Your task to perform on an android device: toggle pop-ups in chrome Image 0: 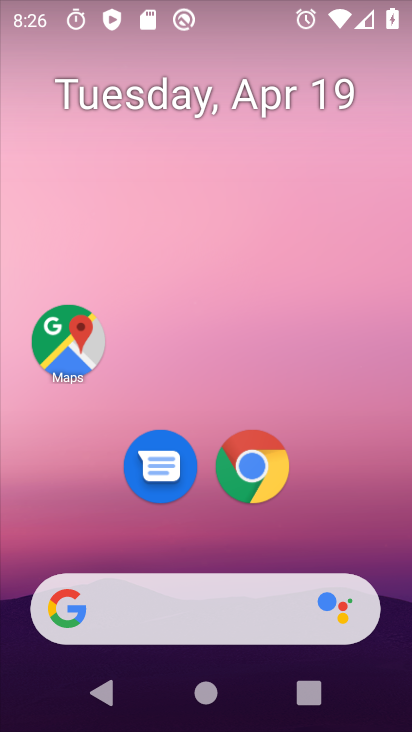
Step 0: drag from (359, 477) to (395, 7)
Your task to perform on an android device: toggle pop-ups in chrome Image 1: 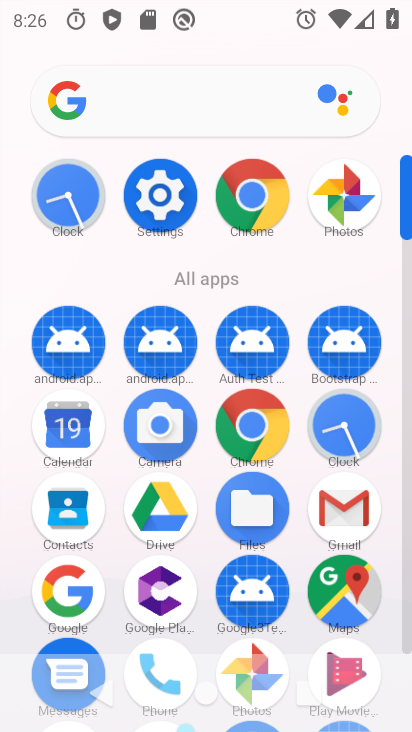
Step 1: click (270, 437)
Your task to perform on an android device: toggle pop-ups in chrome Image 2: 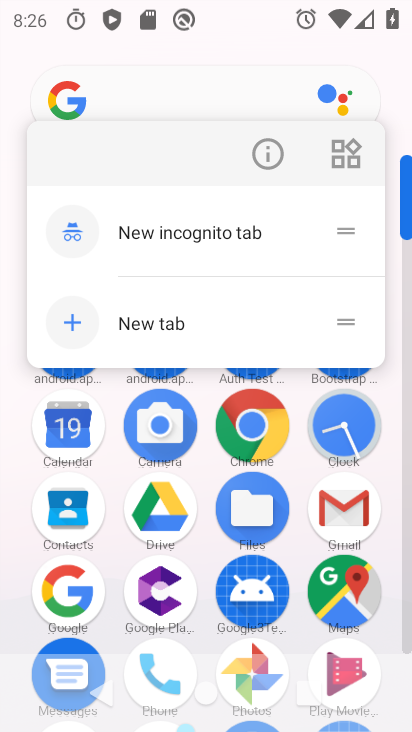
Step 2: click (270, 437)
Your task to perform on an android device: toggle pop-ups in chrome Image 3: 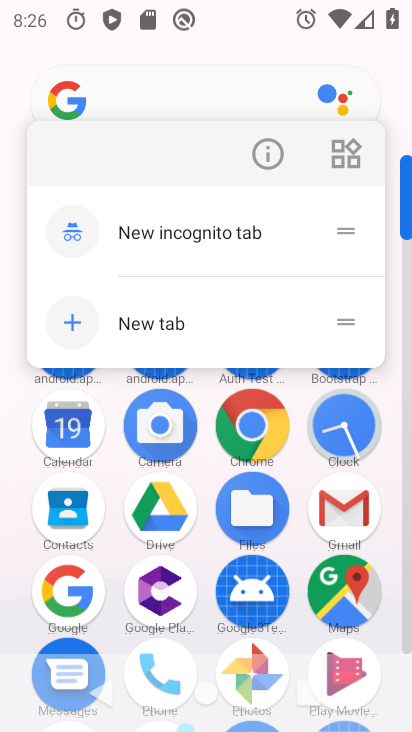
Step 3: click (270, 437)
Your task to perform on an android device: toggle pop-ups in chrome Image 4: 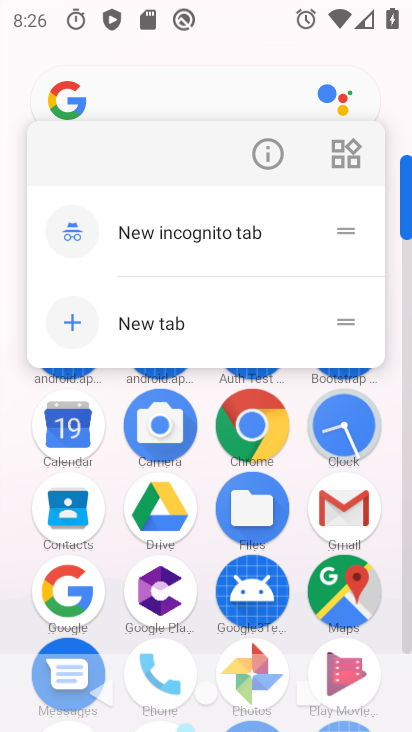
Step 4: click (244, 419)
Your task to perform on an android device: toggle pop-ups in chrome Image 5: 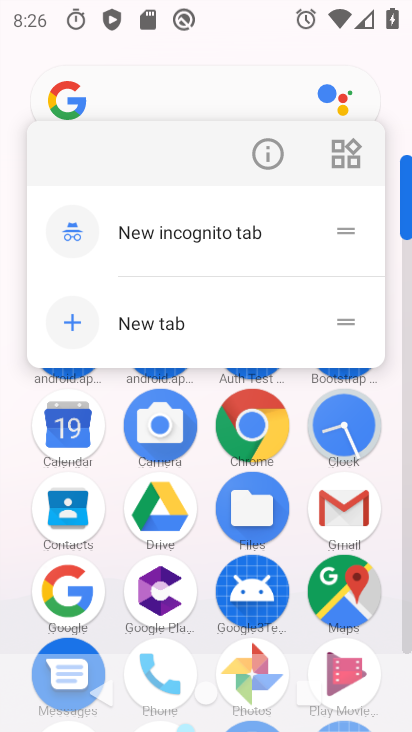
Step 5: click (244, 419)
Your task to perform on an android device: toggle pop-ups in chrome Image 6: 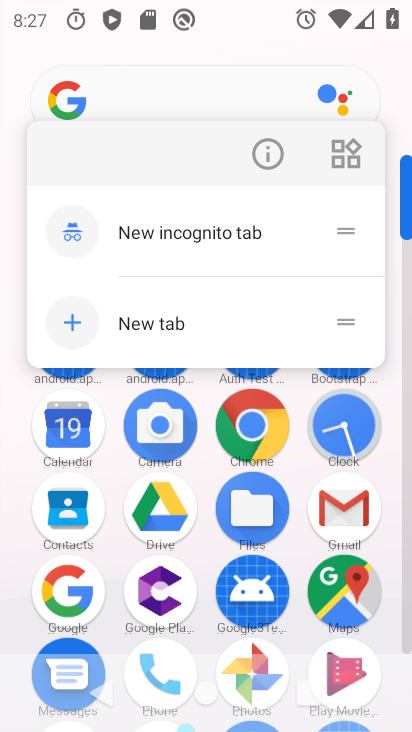
Step 6: click (244, 419)
Your task to perform on an android device: toggle pop-ups in chrome Image 7: 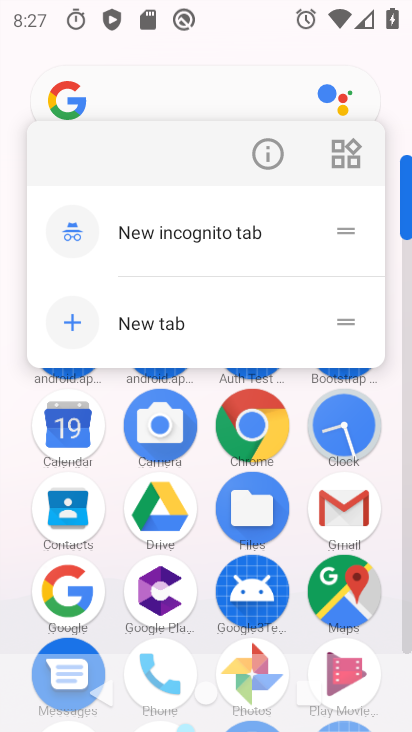
Step 7: click (244, 419)
Your task to perform on an android device: toggle pop-ups in chrome Image 8: 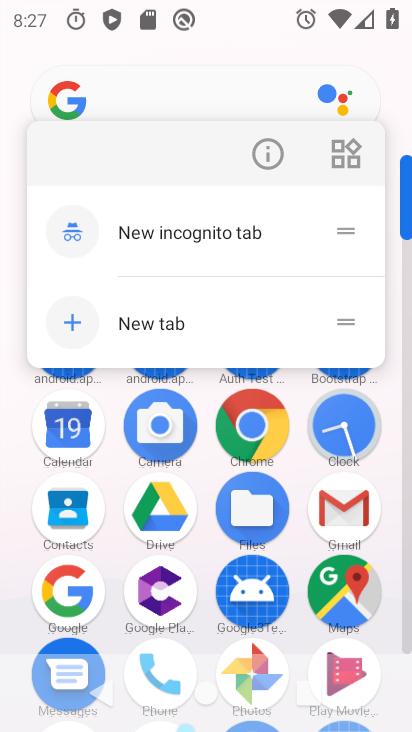
Step 8: click (244, 419)
Your task to perform on an android device: toggle pop-ups in chrome Image 9: 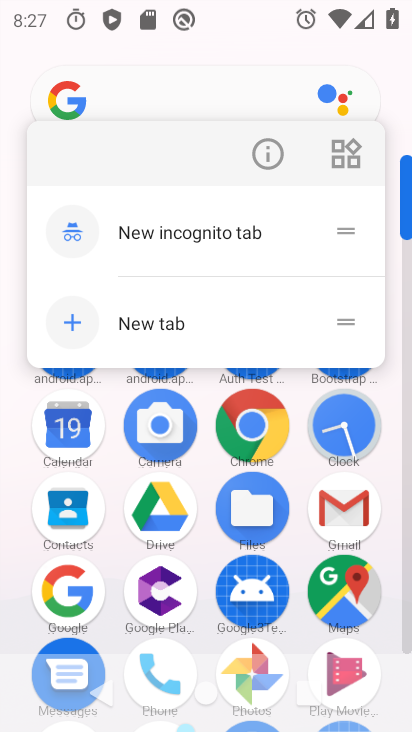
Step 9: click (244, 419)
Your task to perform on an android device: toggle pop-ups in chrome Image 10: 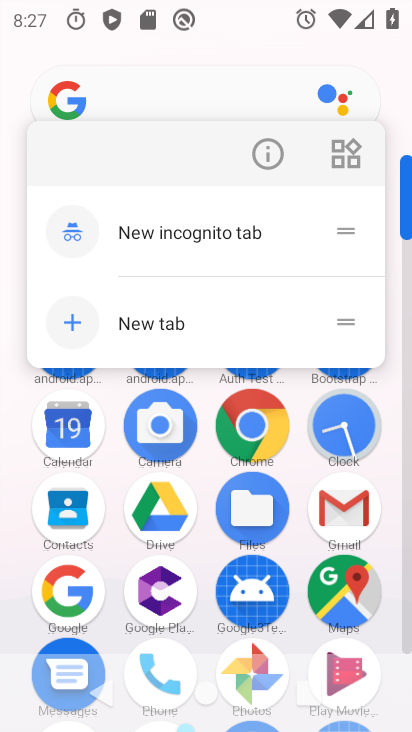
Step 10: click (244, 419)
Your task to perform on an android device: toggle pop-ups in chrome Image 11: 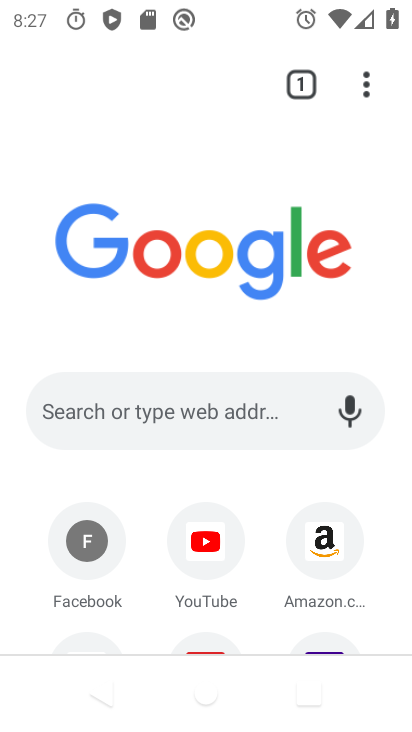
Step 11: drag from (365, 85) to (91, 522)
Your task to perform on an android device: toggle pop-ups in chrome Image 12: 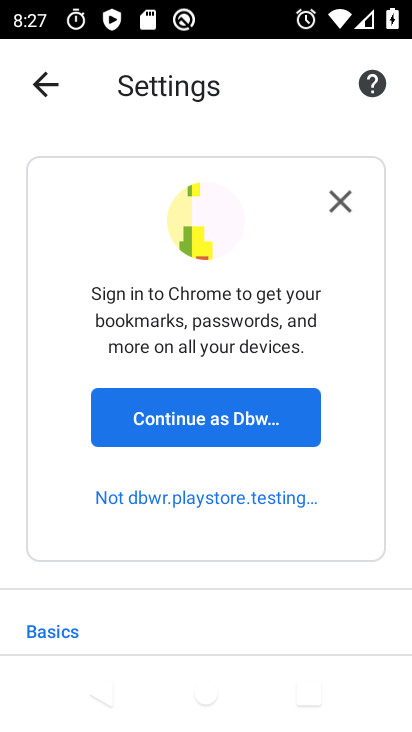
Step 12: drag from (170, 595) to (186, 215)
Your task to perform on an android device: toggle pop-ups in chrome Image 13: 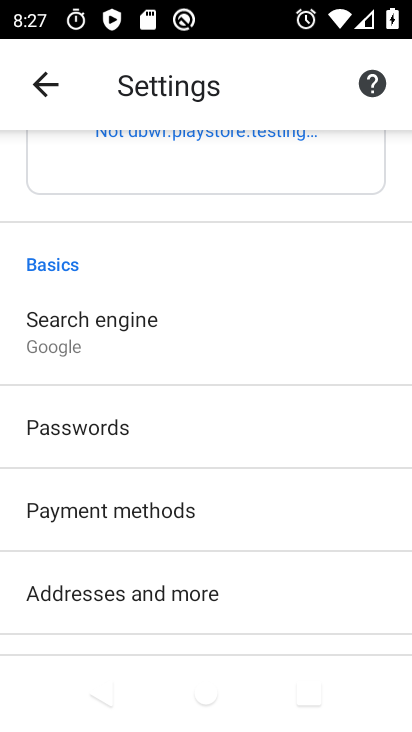
Step 13: drag from (149, 480) to (132, 211)
Your task to perform on an android device: toggle pop-ups in chrome Image 14: 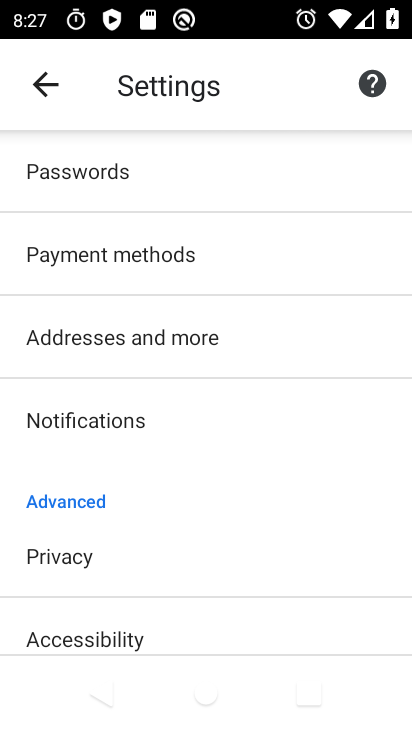
Step 14: drag from (151, 562) to (126, 216)
Your task to perform on an android device: toggle pop-ups in chrome Image 15: 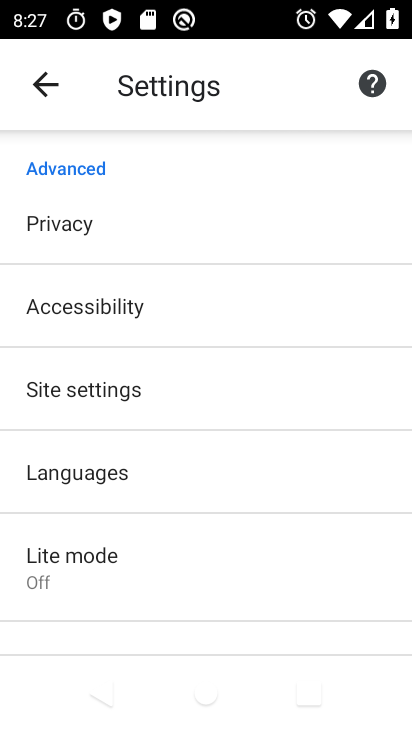
Step 15: click (70, 399)
Your task to perform on an android device: toggle pop-ups in chrome Image 16: 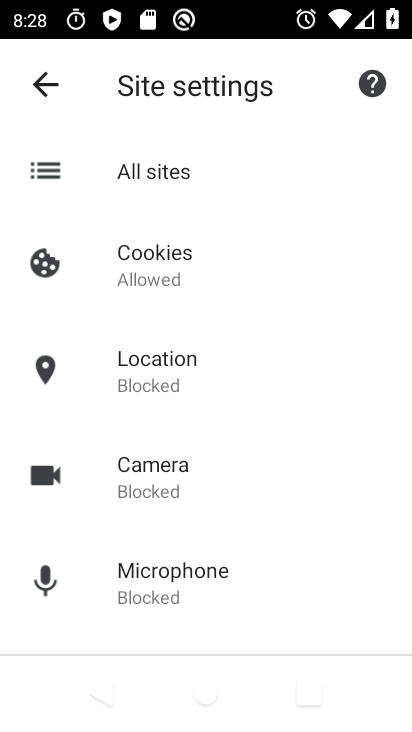
Step 16: drag from (91, 536) to (89, 160)
Your task to perform on an android device: toggle pop-ups in chrome Image 17: 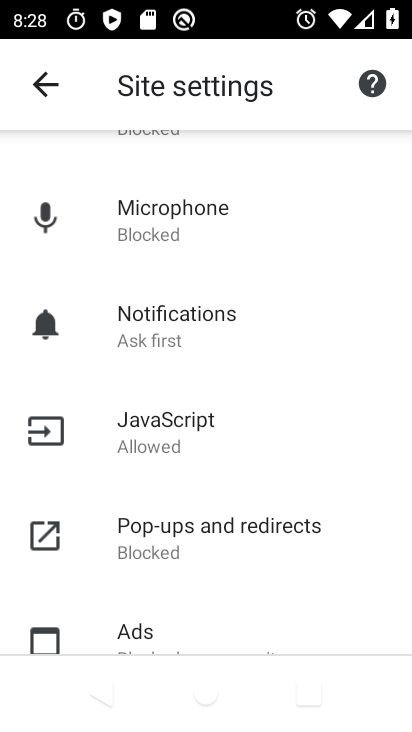
Step 17: click (191, 543)
Your task to perform on an android device: toggle pop-ups in chrome Image 18: 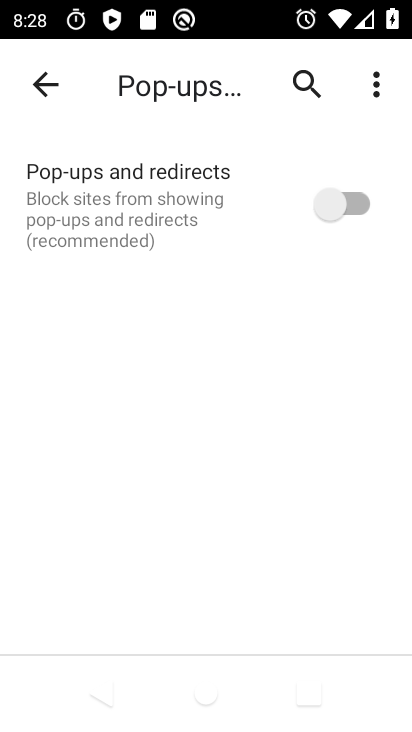
Step 18: click (364, 209)
Your task to perform on an android device: toggle pop-ups in chrome Image 19: 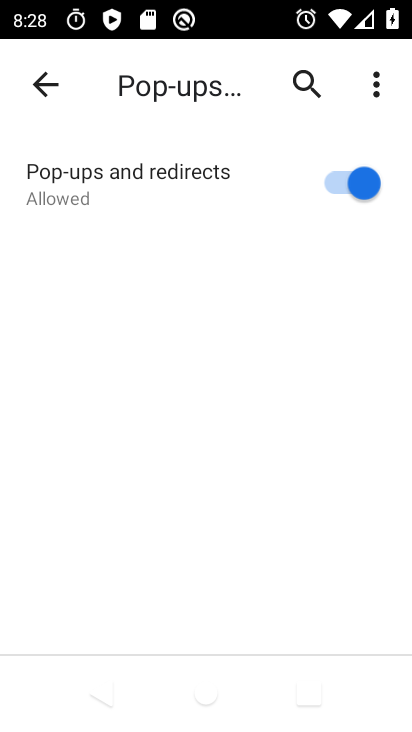
Step 19: task complete